Your task to perform on an android device: Play the last video I watched on Youtube Image 0: 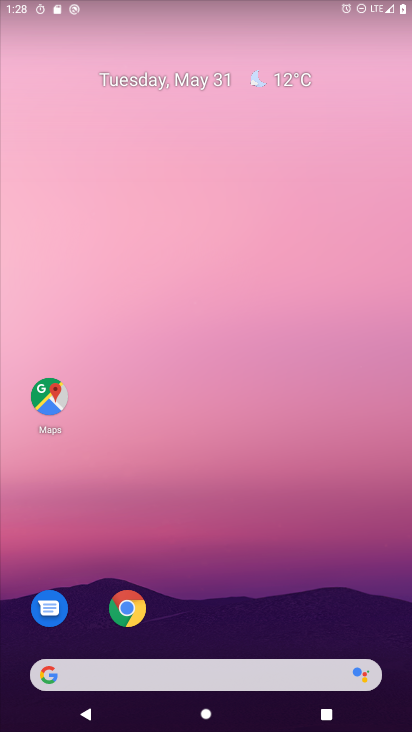
Step 0: drag from (307, 652) to (313, 85)
Your task to perform on an android device: Play the last video I watched on Youtube Image 1: 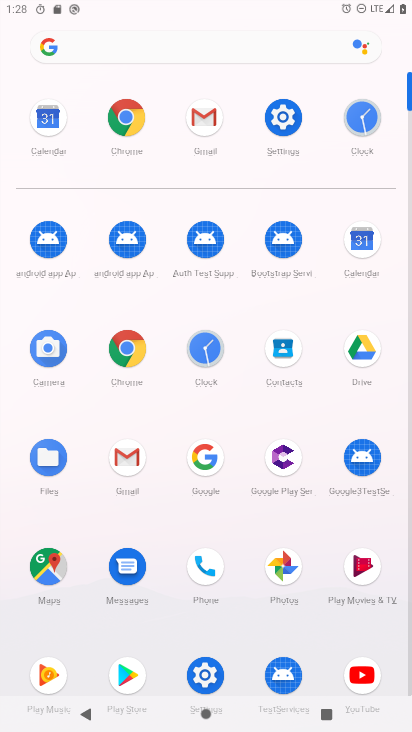
Step 1: click (364, 678)
Your task to perform on an android device: Play the last video I watched on Youtube Image 2: 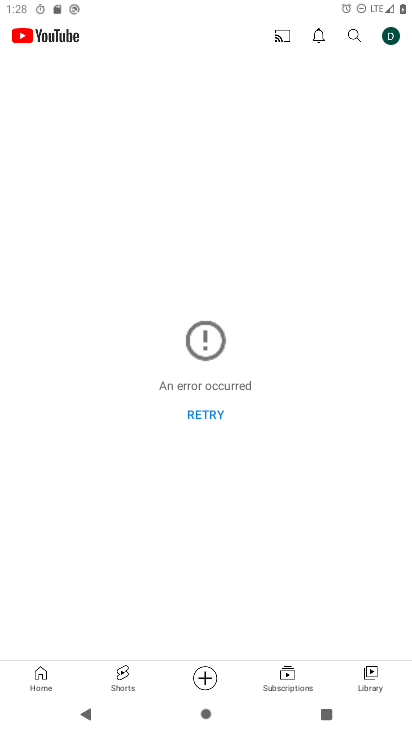
Step 2: click (371, 686)
Your task to perform on an android device: Play the last video I watched on Youtube Image 3: 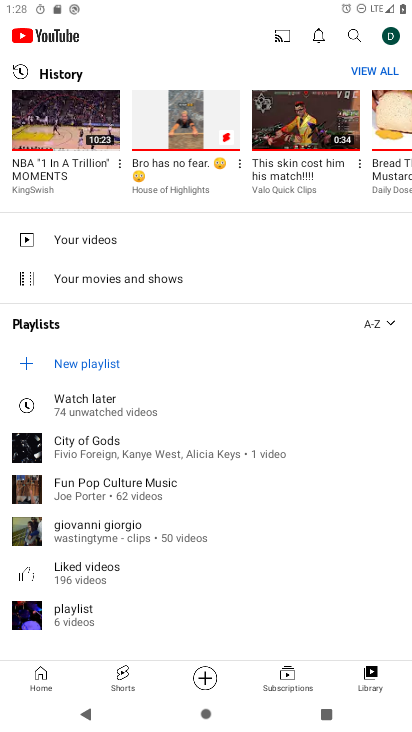
Step 3: click (61, 126)
Your task to perform on an android device: Play the last video I watched on Youtube Image 4: 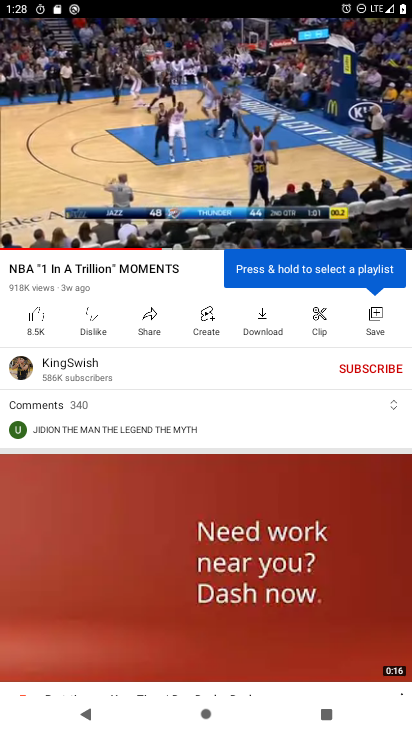
Step 4: click (202, 146)
Your task to perform on an android device: Play the last video I watched on Youtube Image 5: 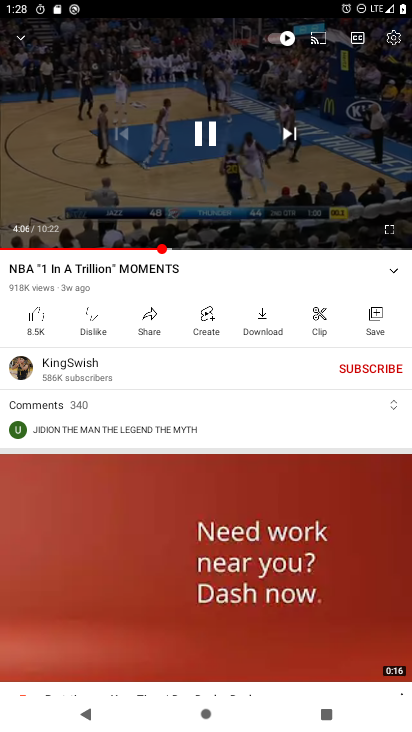
Step 5: click (201, 133)
Your task to perform on an android device: Play the last video I watched on Youtube Image 6: 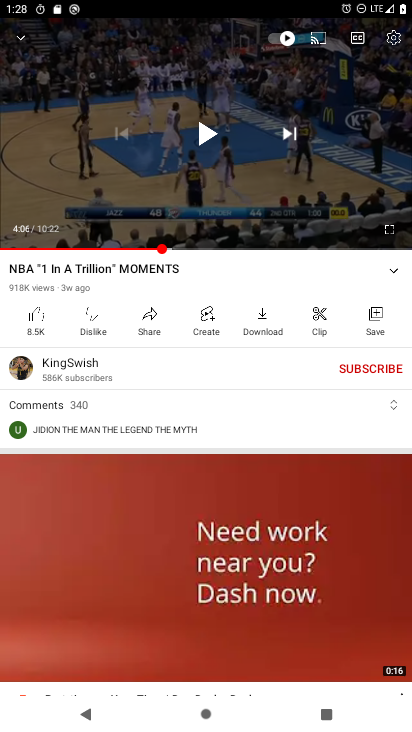
Step 6: task complete